Your task to perform on an android device: Go to Maps Image 0: 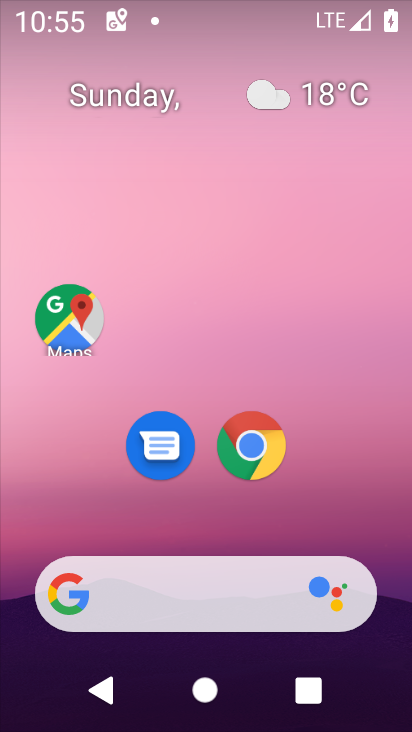
Step 0: press home button
Your task to perform on an android device: Go to Maps Image 1: 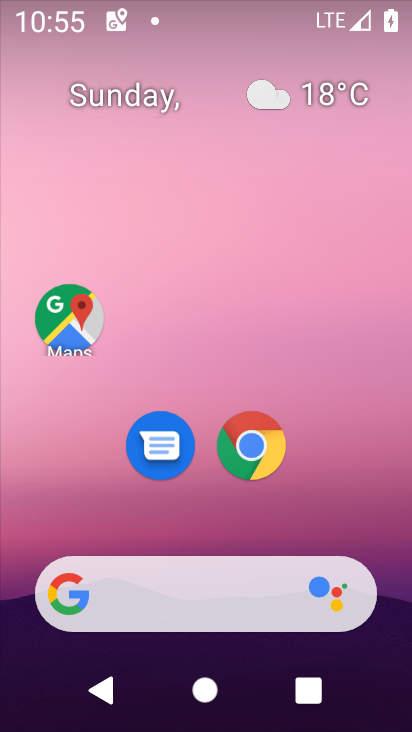
Step 1: click (72, 311)
Your task to perform on an android device: Go to Maps Image 2: 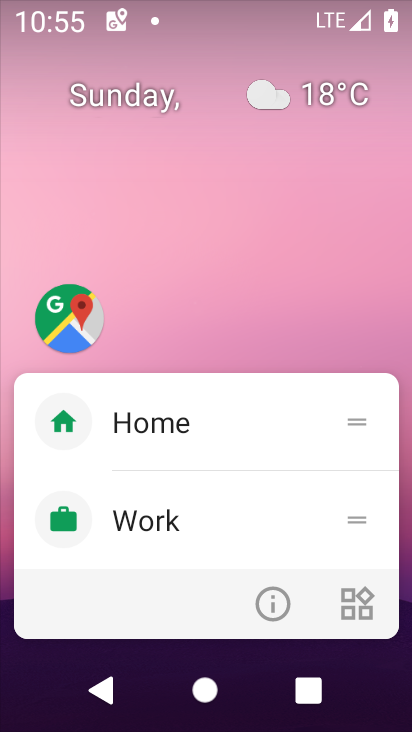
Step 2: click (69, 312)
Your task to perform on an android device: Go to Maps Image 3: 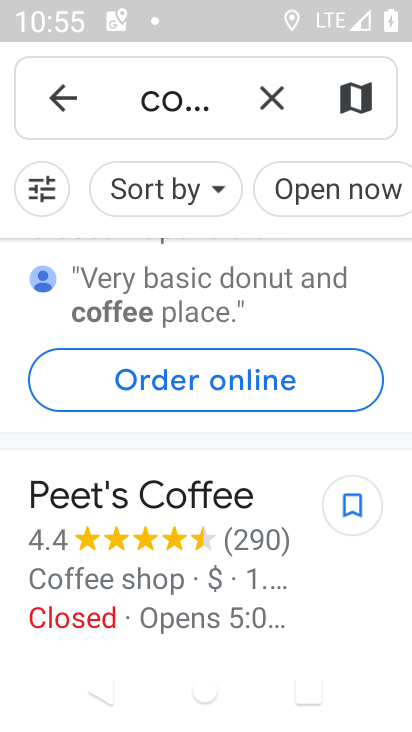
Step 3: click (278, 102)
Your task to perform on an android device: Go to Maps Image 4: 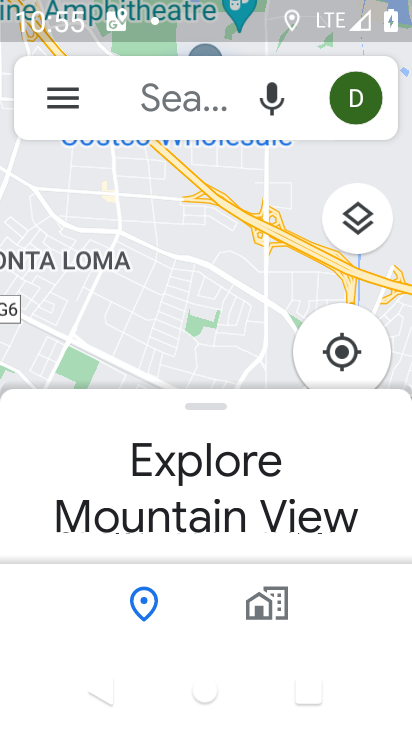
Step 4: task complete